Your task to perform on an android device: Toggle the flashlight Image 0: 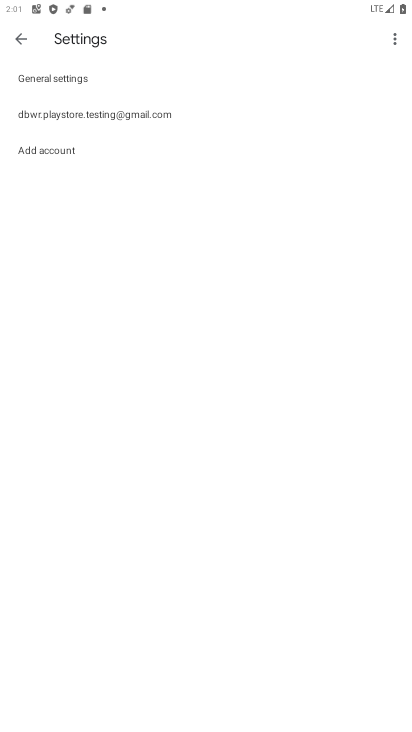
Step 0: press home button
Your task to perform on an android device: Toggle the flashlight Image 1: 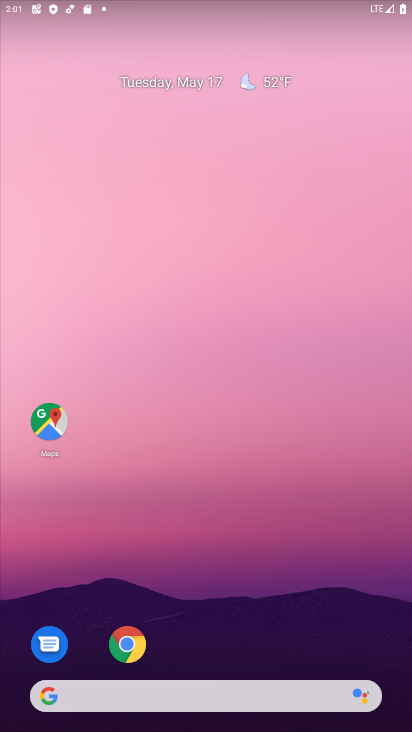
Step 1: task complete